Your task to perform on an android device: turn on airplane mode Image 0: 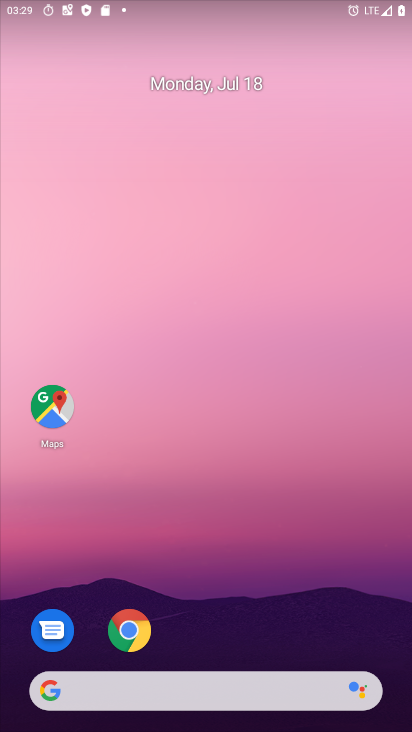
Step 0: drag from (228, 13) to (224, 487)
Your task to perform on an android device: turn on airplane mode Image 1: 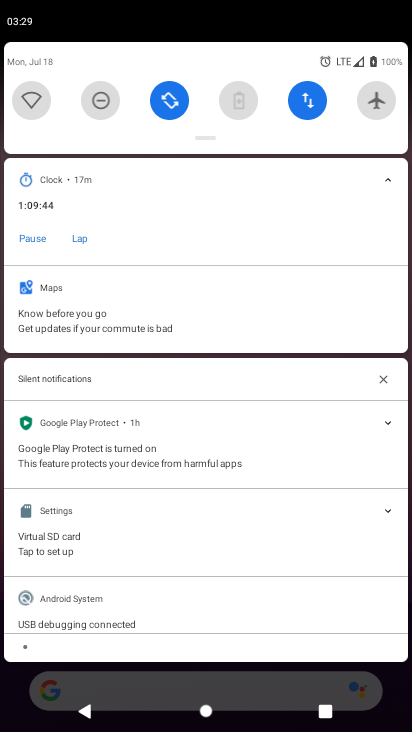
Step 1: click (389, 95)
Your task to perform on an android device: turn on airplane mode Image 2: 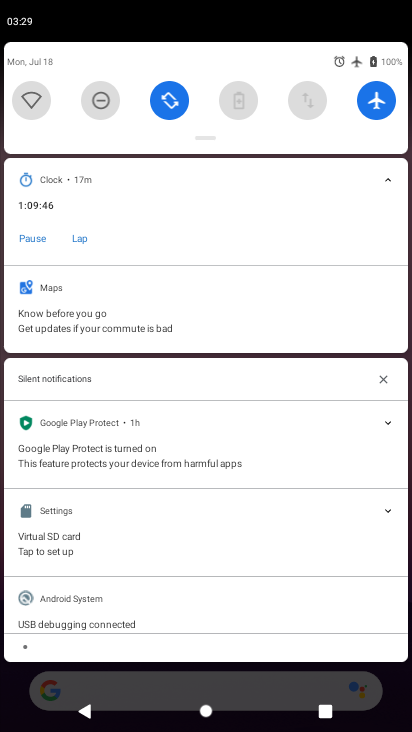
Step 2: task complete